Your task to perform on an android device: Go to Google maps Image 0: 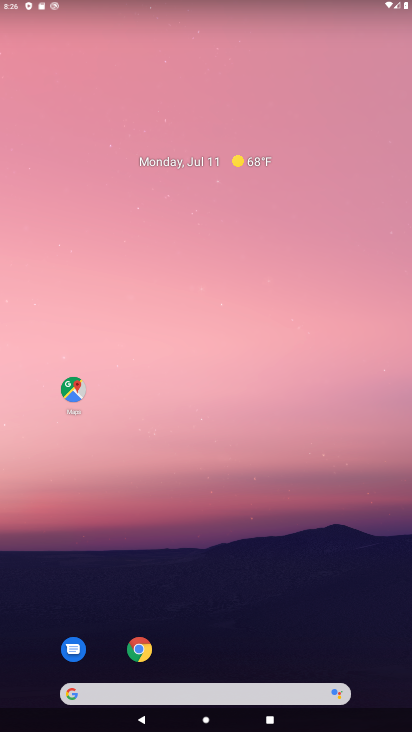
Step 0: drag from (308, 702) to (170, 103)
Your task to perform on an android device: Go to Google maps Image 1: 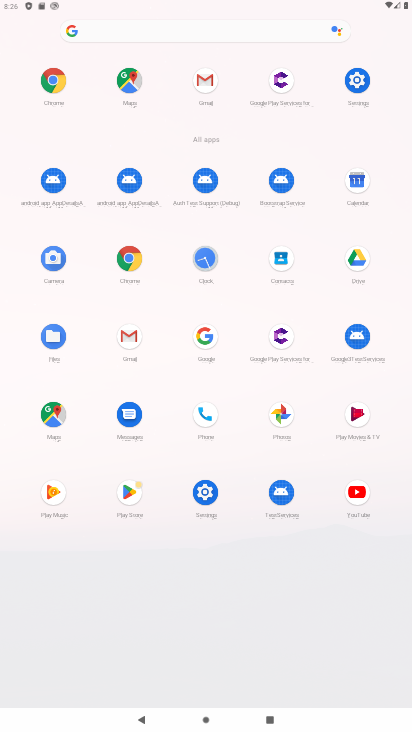
Step 1: click (38, 415)
Your task to perform on an android device: Go to Google maps Image 2: 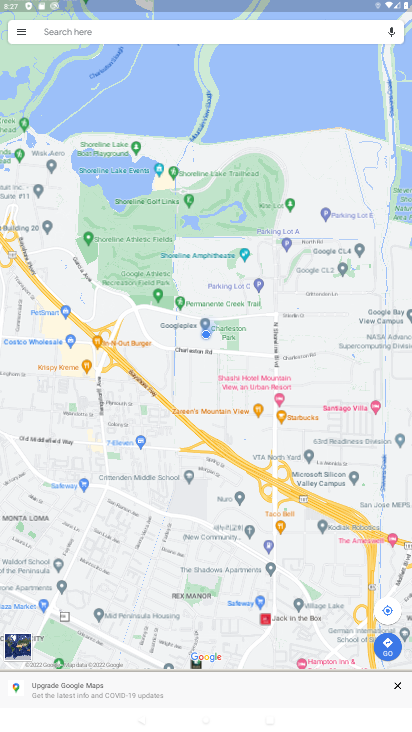
Step 2: task complete